Your task to perform on an android device: check data usage Image 0: 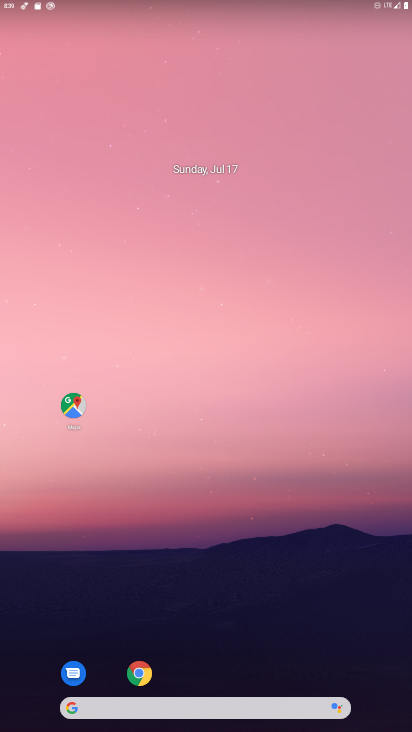
Step 0: drag from (334, 5) to (263, 661)
Your task to perform on an android device: check data usage Image 1: 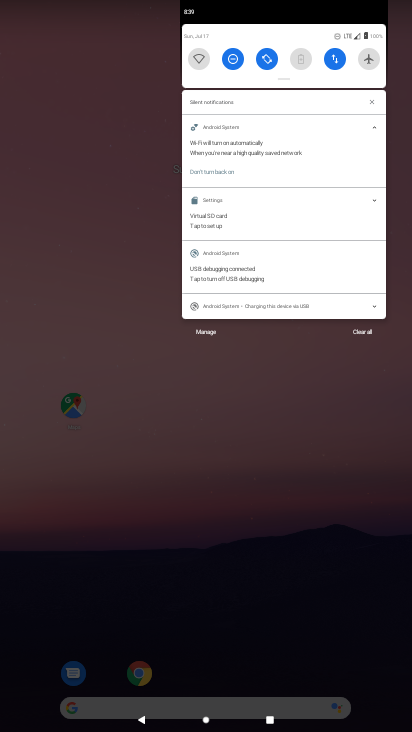
Step 1: click (337, 54)
Your task to perform on an android device: check data usage Image 2: 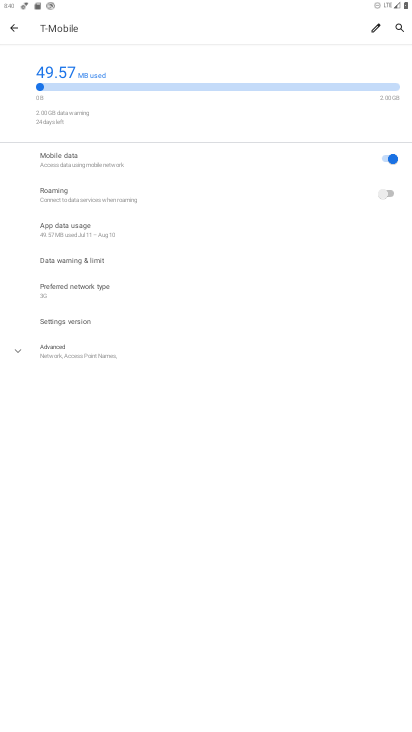
Step 2: task complete